Your task to perform on an android device: Show me recent news Image 0: 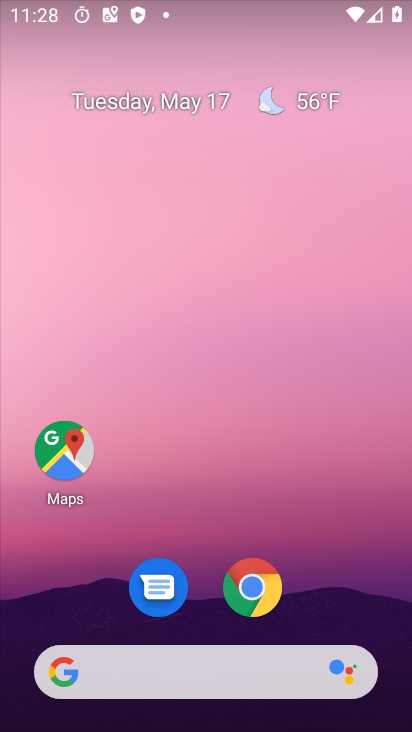
Step 0: drag from (319, 610) to (269, 45)
Your task to perform on an android device: Show me recent news Image 1: 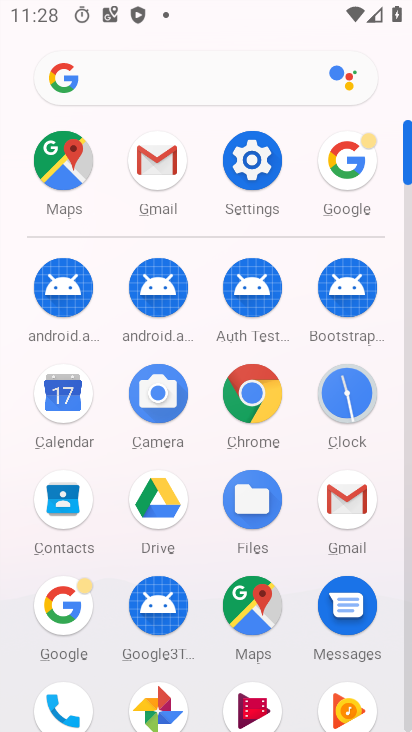
Step 1: click (346, 158)
Your task to perform on an android device: Show me recent news Image 2: 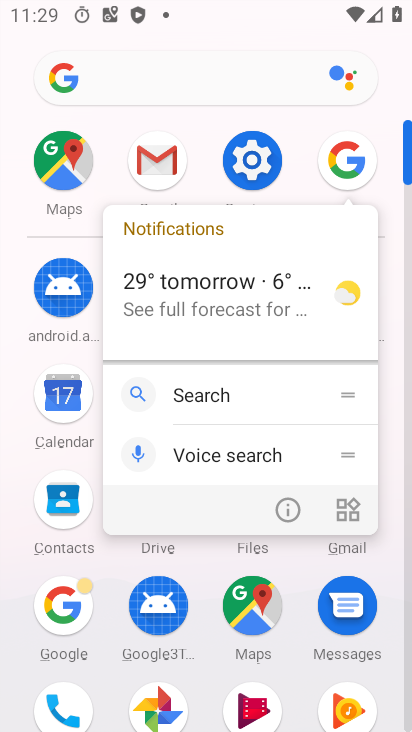
Step 2: click (343, 154)
Your task to perform on an android device: Show me recent news Image 3: 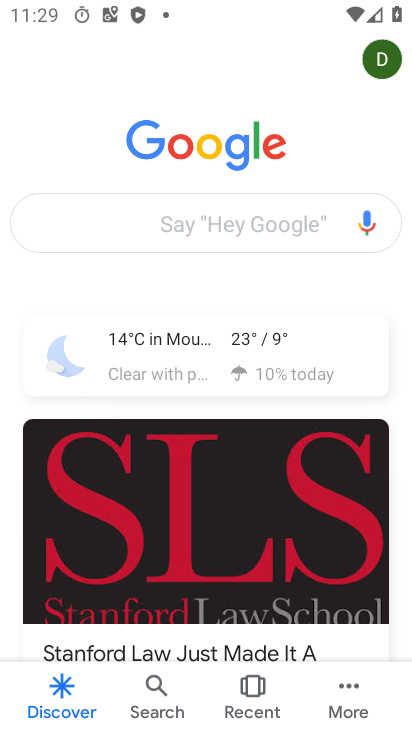
Step 3: click (263, 214)
Your task to perform on an android device: Show me recent news Image 4: 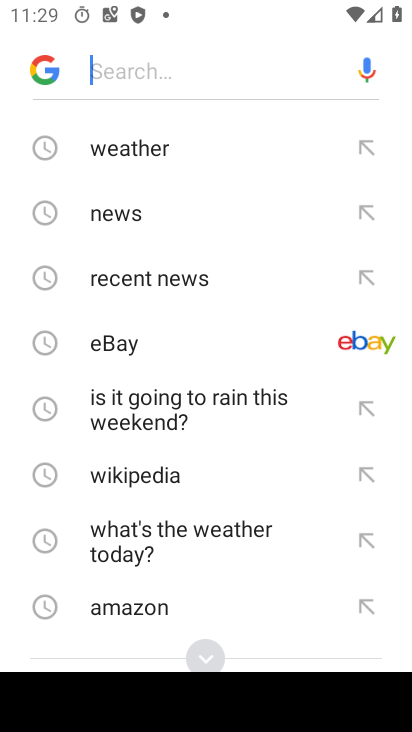
Step 4: type "recent news"
Your task to perform on an android device: Show me recent news Image 5: 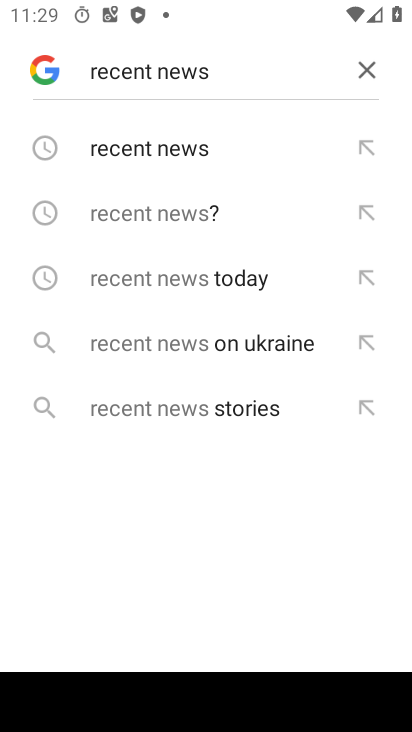
Step 5: click (133, 148)
Your task to perform on an android device: Show me recent news Image 6: 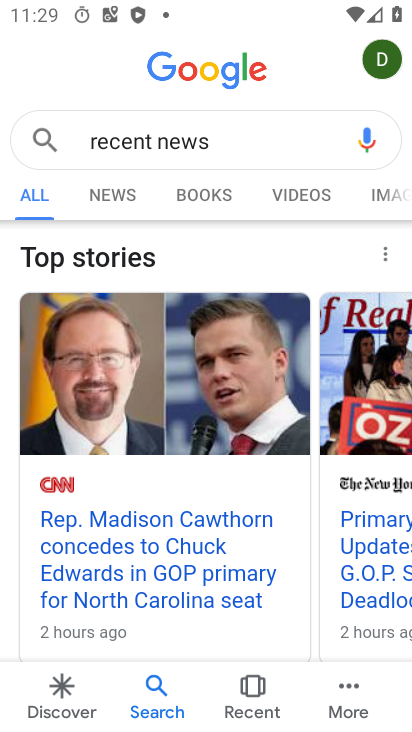
Step 6: click (182, 476)
Your task to perform on an android device: Show me recent news Image 7: 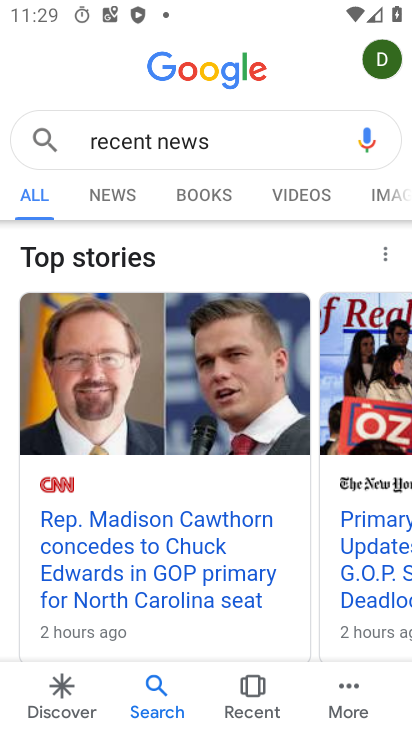
Step 7: click (159, 527)
Your task to perform on an android device: Show me recent news Image 8: 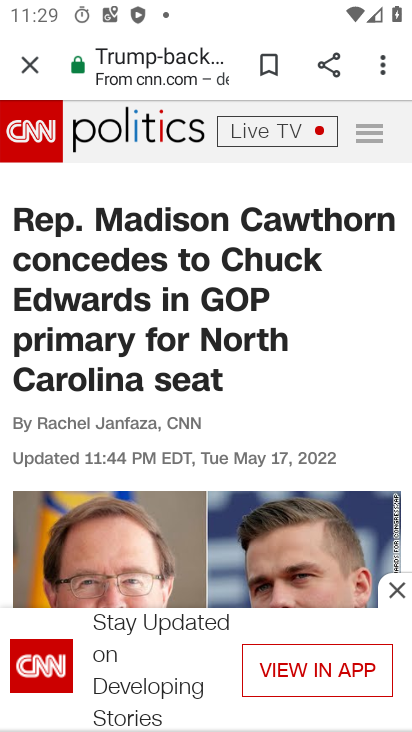
Step 8: task complete